Your task to perform on an android device: Show me productivity apps on the Play Store Image 0: 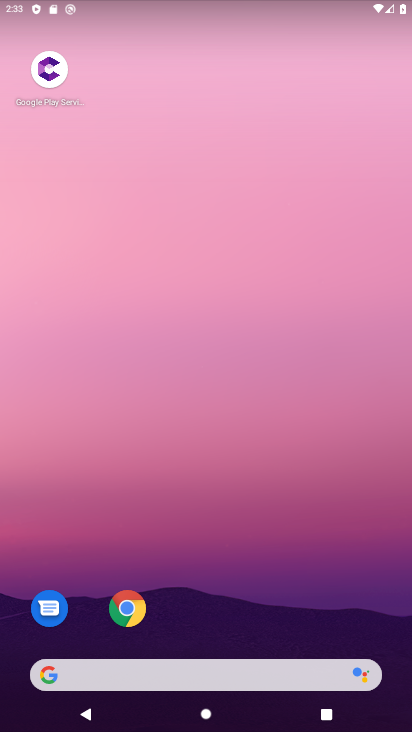
Step 0: drag from (228, 621) to (232, 11)
Your task to perform on an android device: Show me productivity apps on the Play Store Image 1: 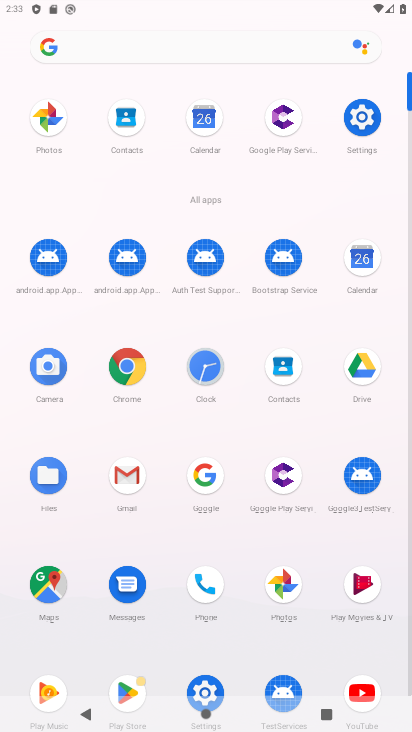
Step 1: click (127, 674)
Your task to perform on an android device: Show me productivity apps on the Play Store Image 2: 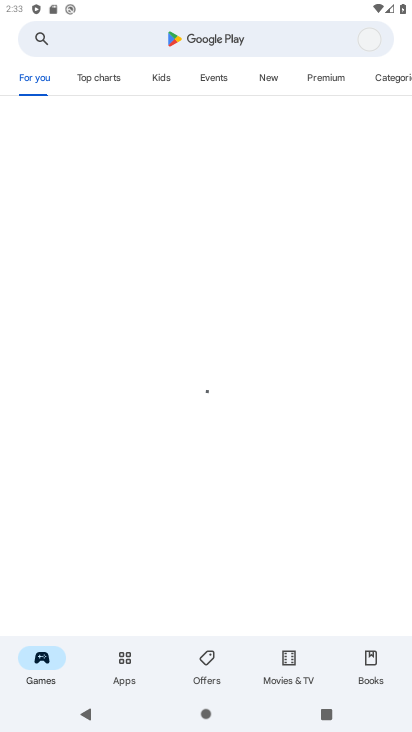
Step 2: click (95, 81)
Your task to perform on an android device: Show me productivity apps on the Play Store Image 3: 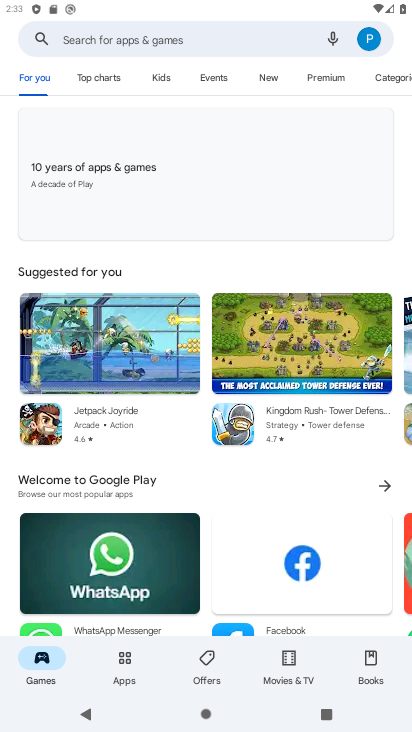
Step 3: drag from (95, 83) to (268, 103)
Your task to perform on an android device: Show me productivity apps on the Play Store Image 4: 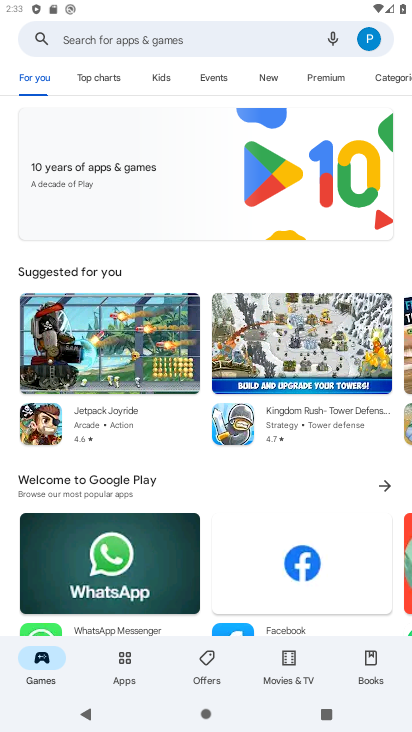
Step 4: click (125, 663)
Your task to perform on an android device: Show me productivity apps on the Play Store Image 5: 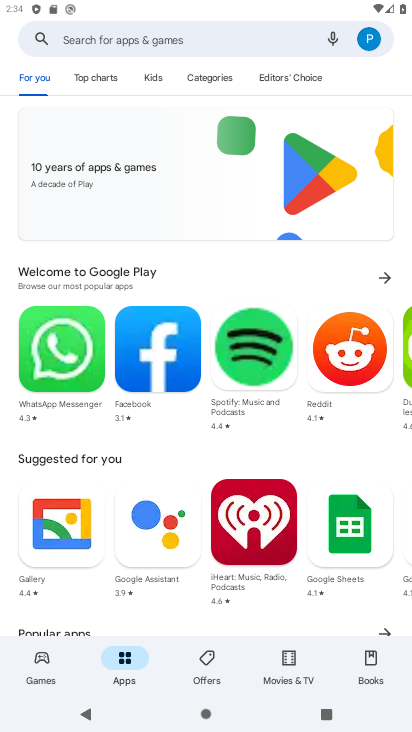
Step 5: click (221, 80)
Your task to perform on an android device: Show me productivity apps on the Play Store Image 6: 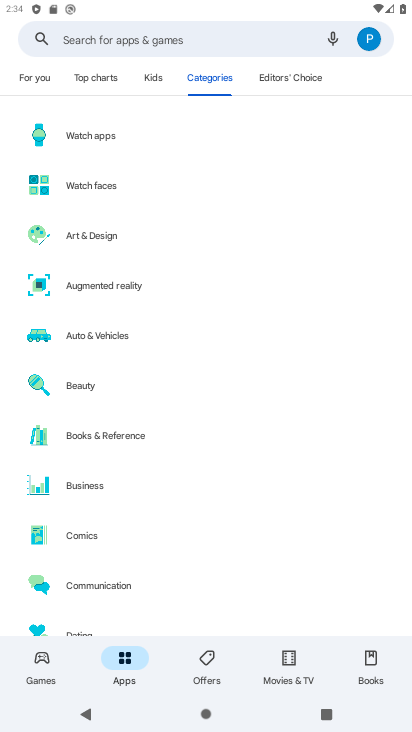
Step 6: drag from (149, 570) to (173, 0)
Your task to perform on an android device: Show me productivity apps on the Play Store Image 7: 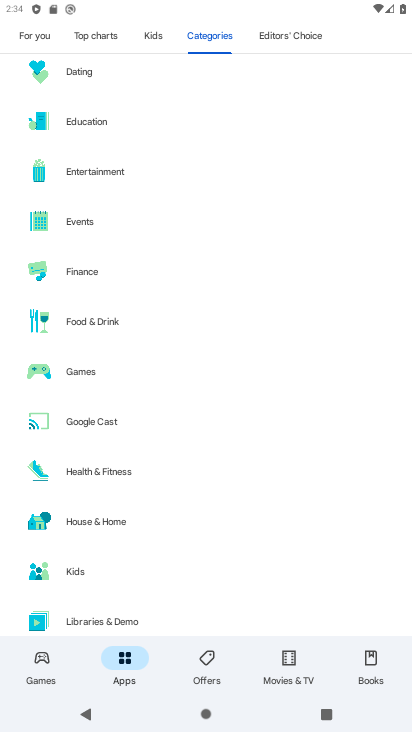
Step 7: drag from (142, 586) to (150, 95)
Your task to perform on an android device: Show me productivity apps on the Play Store Image 8: 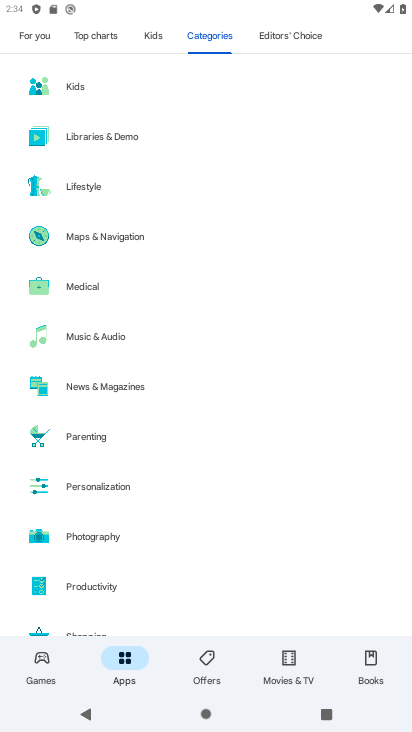
Step 8: click (117, 595)
Your task to perform on an android device: Show me productivity apps on the Play Store Image 9: 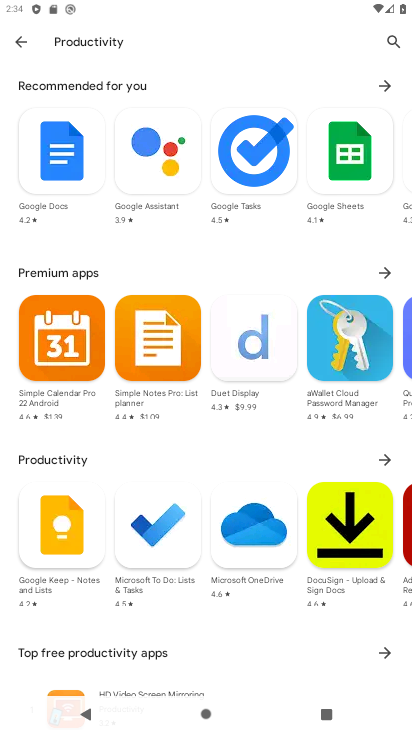
Step 9: task complete